Your task to perform on an android device: set the timer Image 0: 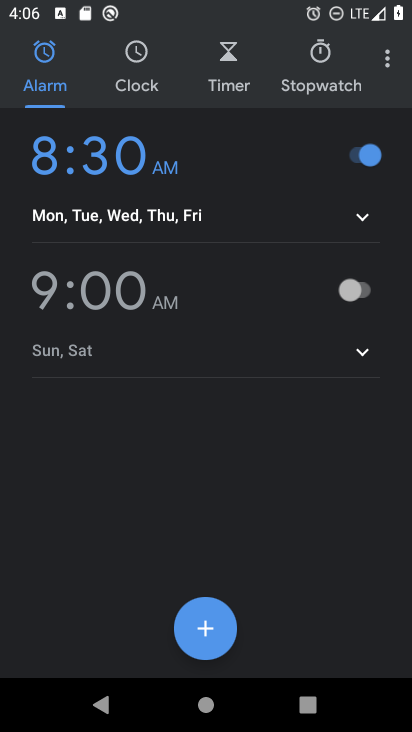
Step 0: click (225, 62)
Your task to perform on an android device: set the timer Image 1: 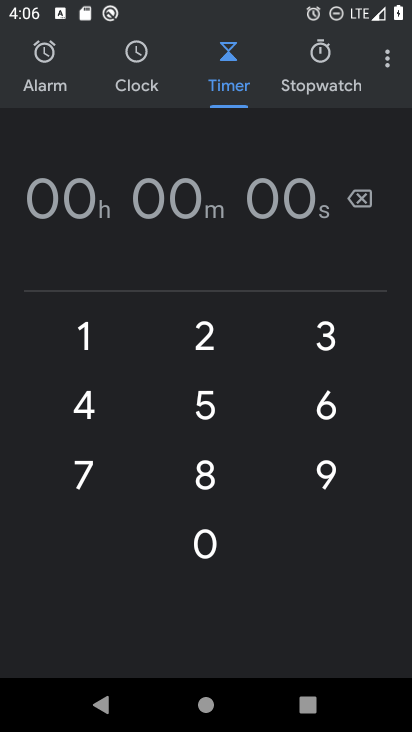
Step 1: click (213, 473)
Your task to perform on an android device: set the timer Image 2: 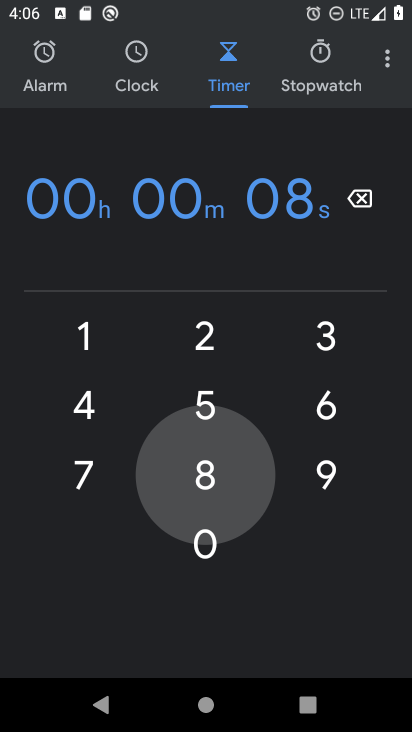
Step 2: click (224, 413)
Your task to perform on an android device: set the timer Image 3: 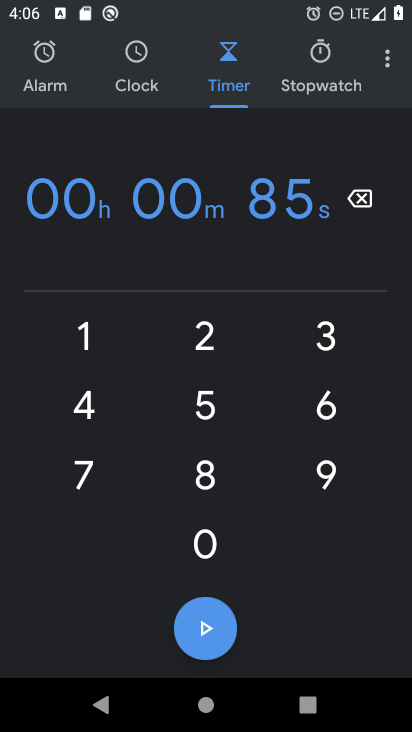
Step 3: click (206, 344)
Your task to perform on an android device: set the timer Image 4: 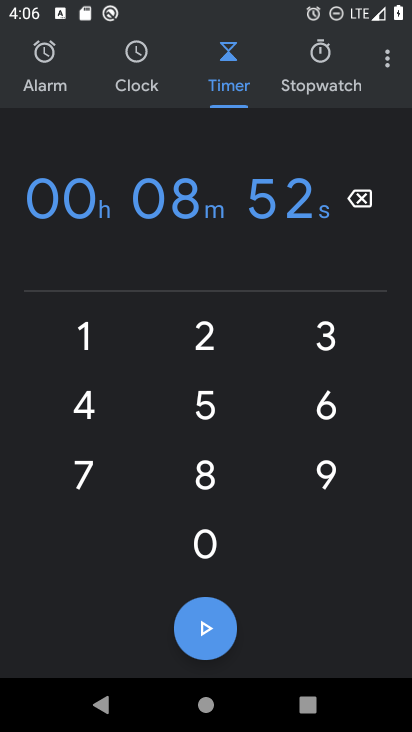
Step 4: click (328, 341)
Your task to perform on an android device: set the timer Image 5: 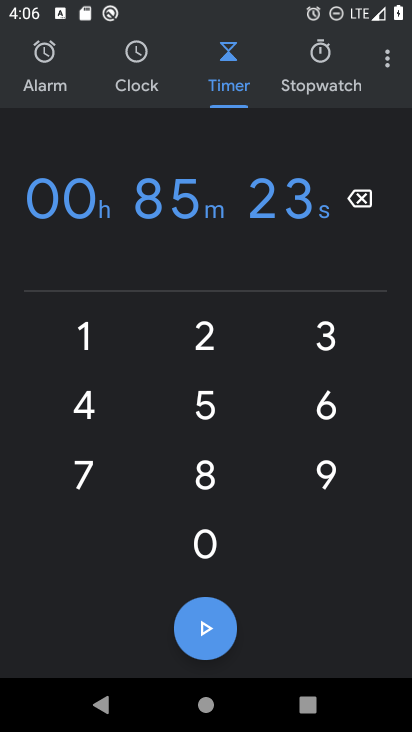
Step 5: click (326, 410)
Your task to perform on an android device: set the timer Image 6: 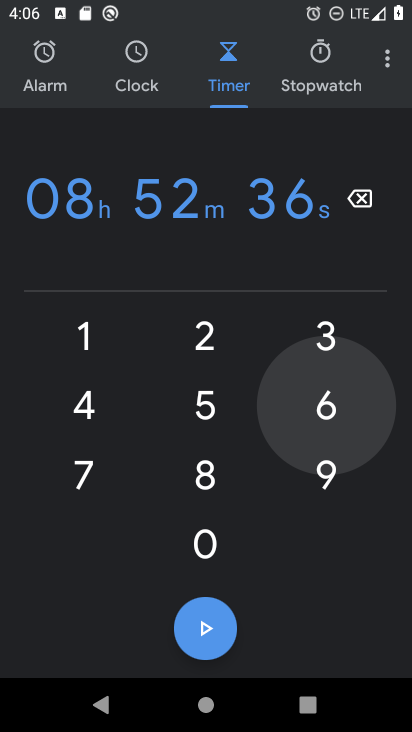
Step 6: click (193, 409)
Your task to perform on an android device: set the timer Image 7: 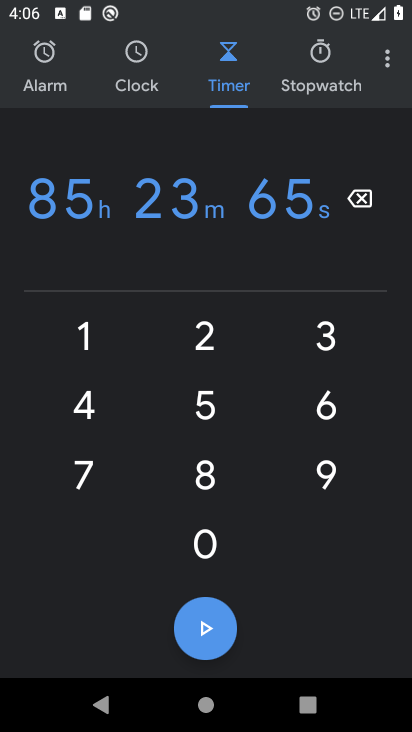
Step 7: click (228, 622)
Your task to perform on an android device: set the timer Image 8: 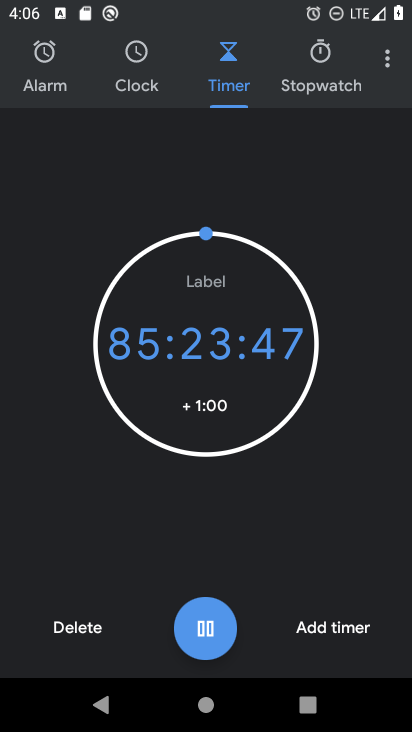
Step 8: task complete